Your task to perform on an android device: Is it going to rain today? Image 0: 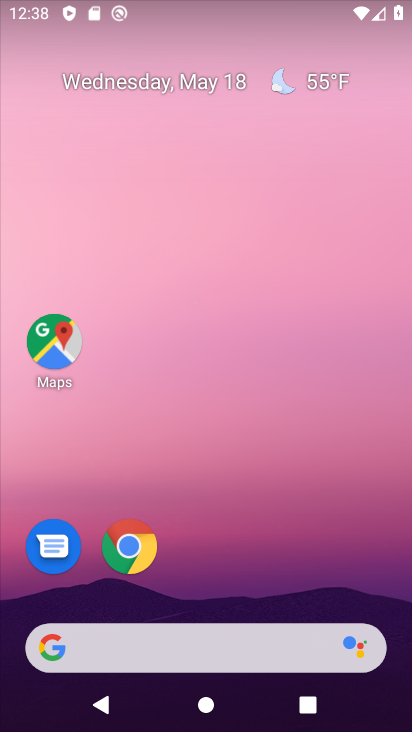
Step 0: drag from (341, 545) to (340, 81)
Your task to perform on an android device: Is it going to rain today? Image 1: 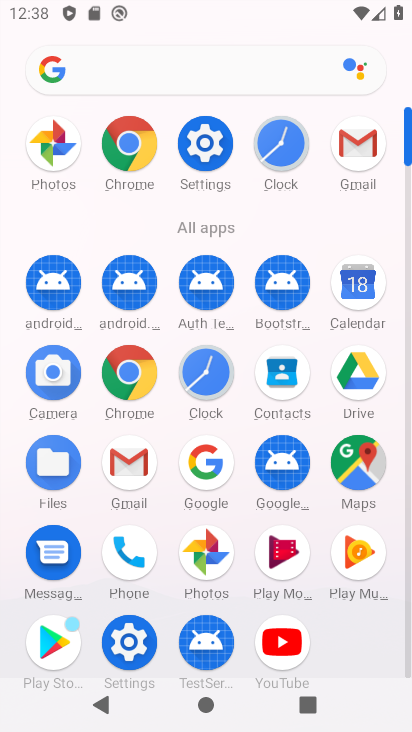
Step 1: click (149, 371)
Your task to perform on an android device: Is it going to rain today? Image 2: 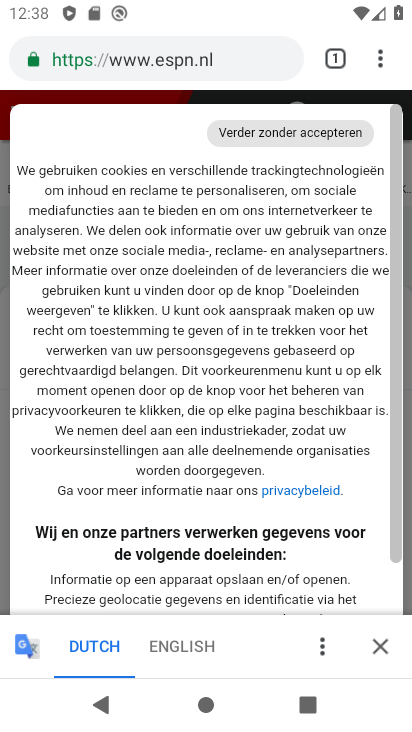
Step 2: click (202, 64)
Your task to perform on an android device: Is it going to rain today? Image 3: 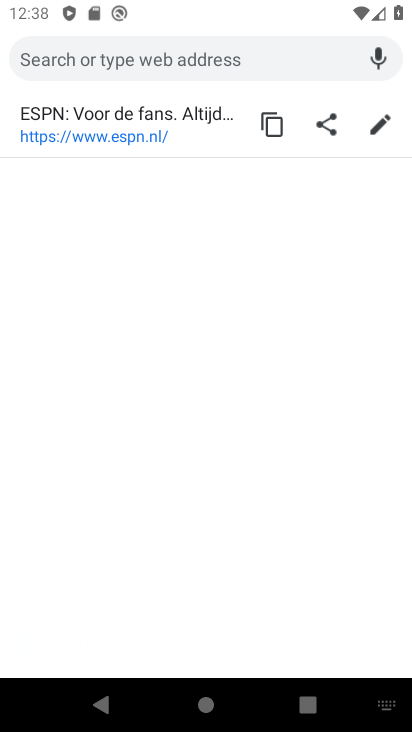
Step 3: type "is it going to rain today"
Your task to perform on an android device: Is it going to rain today? Image 4: 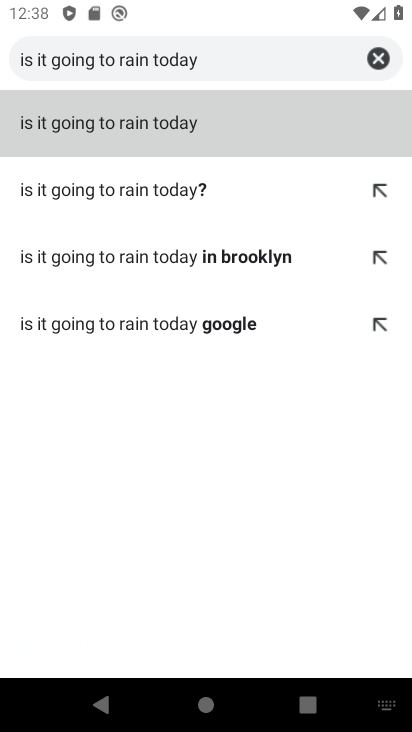
Step 4: click (66, 127)
Your task to perform on an android device: Is it going to rain today? Image 5: 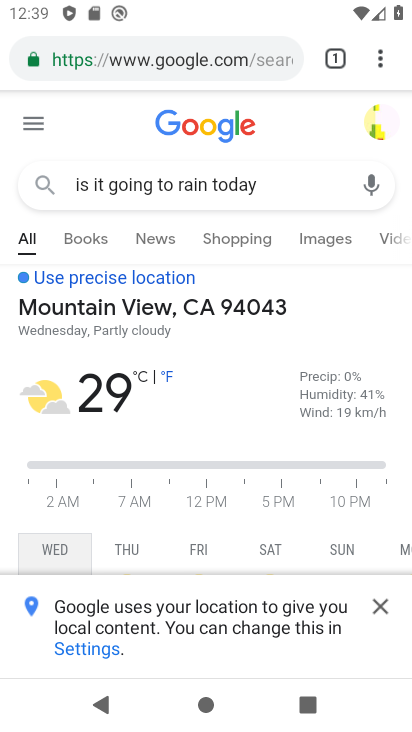
Step 5: task complete